Your task to perform on an android device: turn notification dots on Image 0: 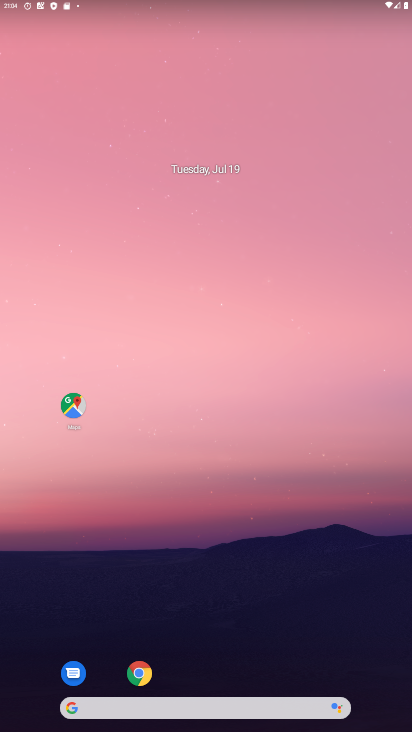
Step 0: drag from (225, 666) to (297, 3)
Your task to perform on an android device: turn notification dots on Image 1: 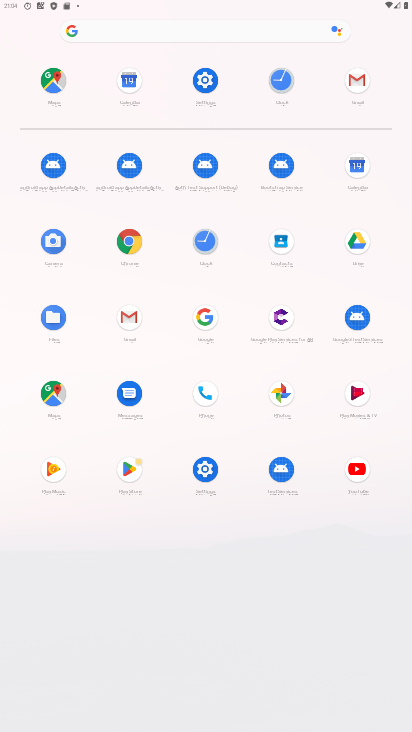
Step 1: click (209, 476)
Your task to perform on an android device: turn notification dots on Image 2: 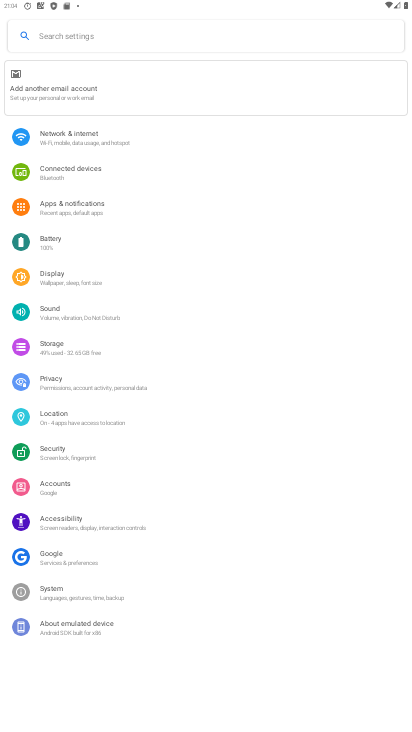
Step 2: click (98, 210)
Your task to perform on an android device: turn notification dots on Image 3: 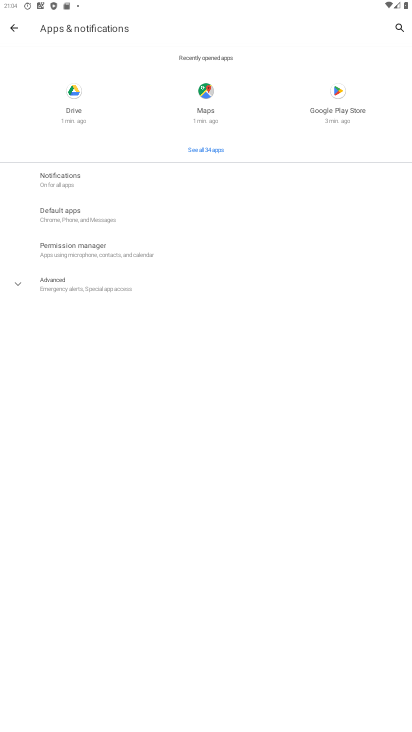
Step 3: click (71, 180)
Your task to perform on an android device: turn notification dots on Image 4: 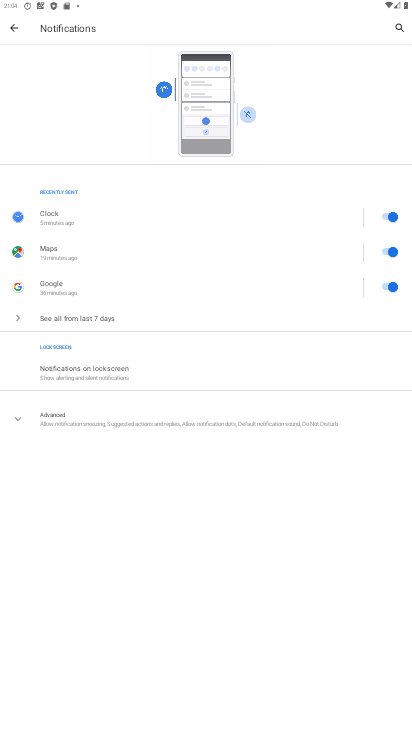
Step 4: click (78, 373)
Your task to perform on an android device: turn notification dots on Image 5: 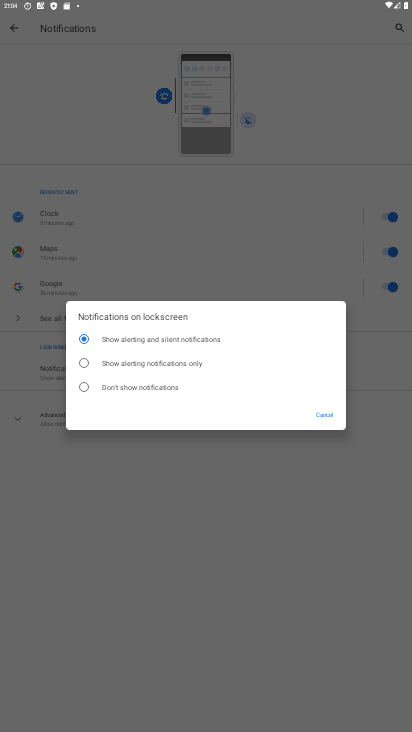
Step 5: click (26, 446)
Your task to perform on an android device: turn notification dots on Image 6: 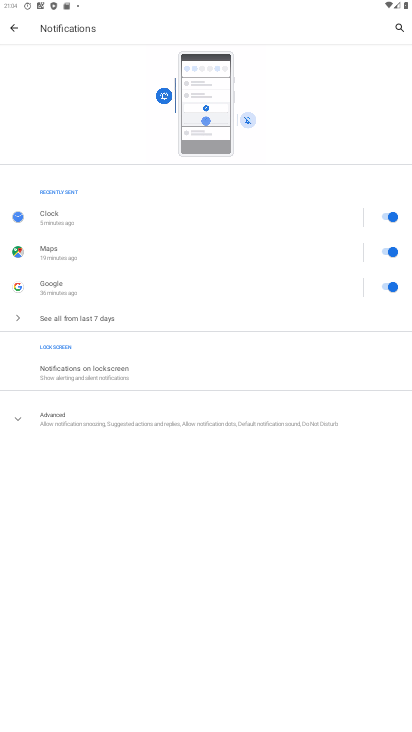
Step 6: click (14, 416)
Your task to perform on an android device: turn notification dots on Image 7: 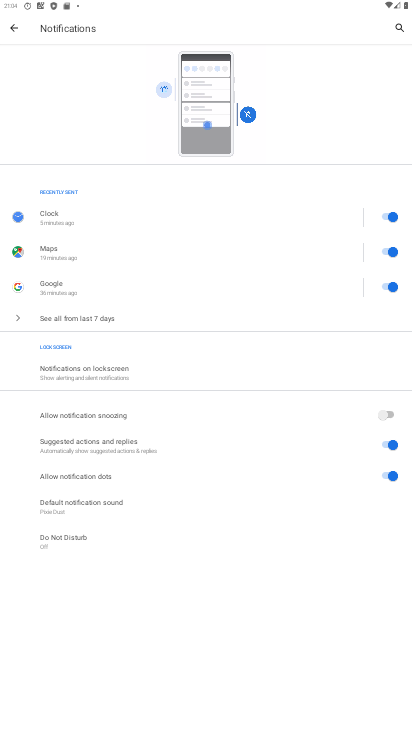
Step 7: task complete